Your task to perform on an android device: See recent photos Image 0: 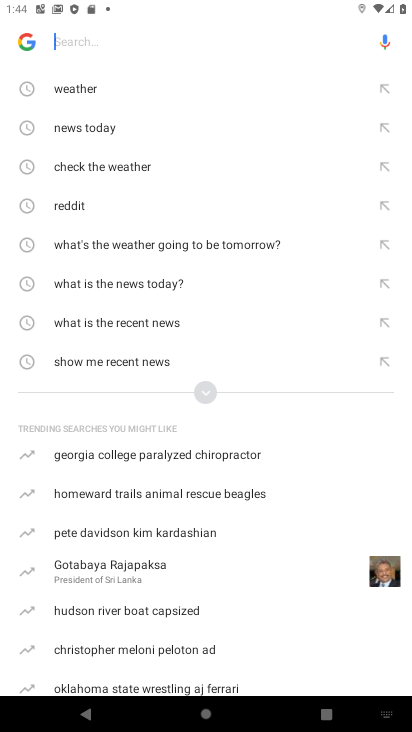
Step 0: press home button
Your task to perform on an android device: See recent photos Image 1: 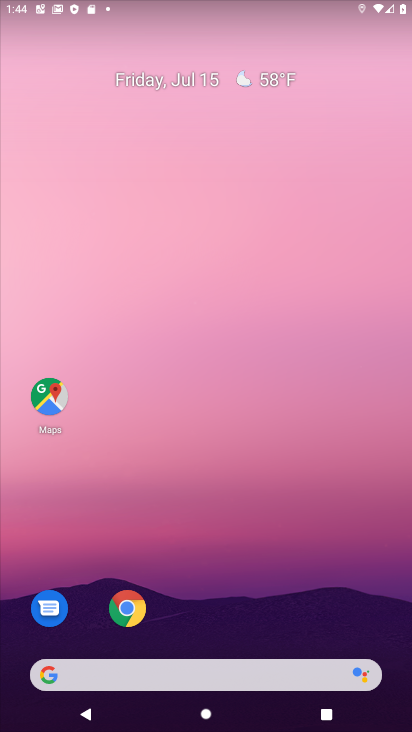
Step 1: click (267, 148)
Your task to perform on an android device: See recent photos Image 2: 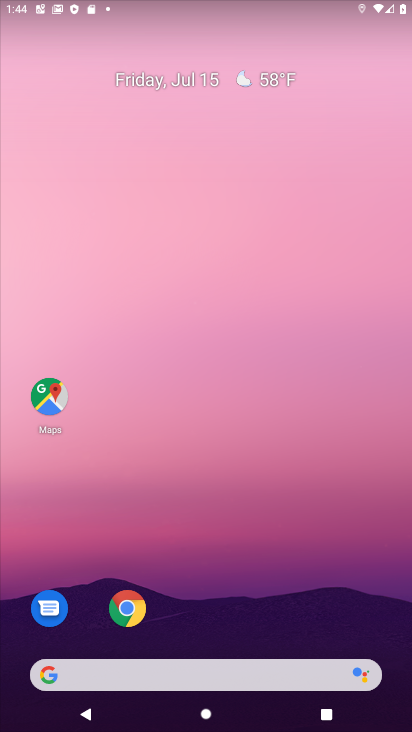
Step 2: drag from (241, 621) to (243, 132)
Your task to perform on an android device: See recent photos Image 3: 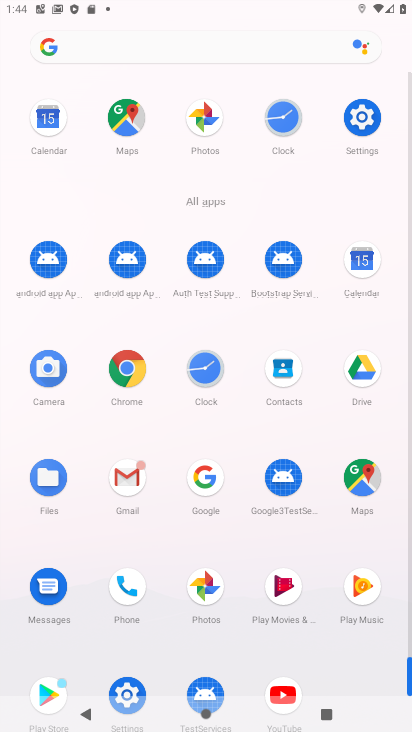
Step 3: click (202, 110)
Your task to perform on an android device: See recent photos Image 4: 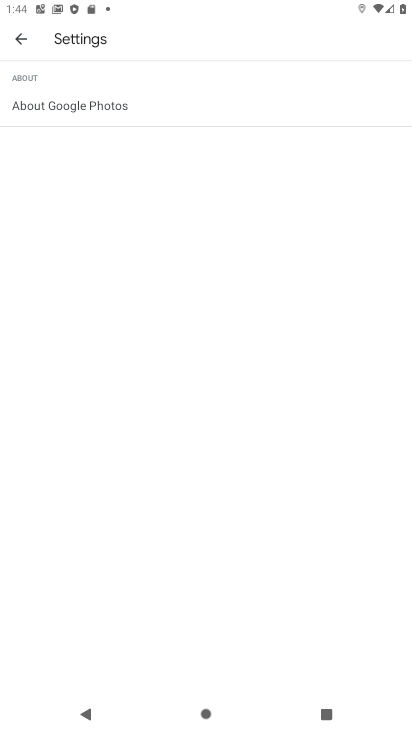
Step 4: click (19, 39)
Your task to perform on an android device: See recent photos Image 5: 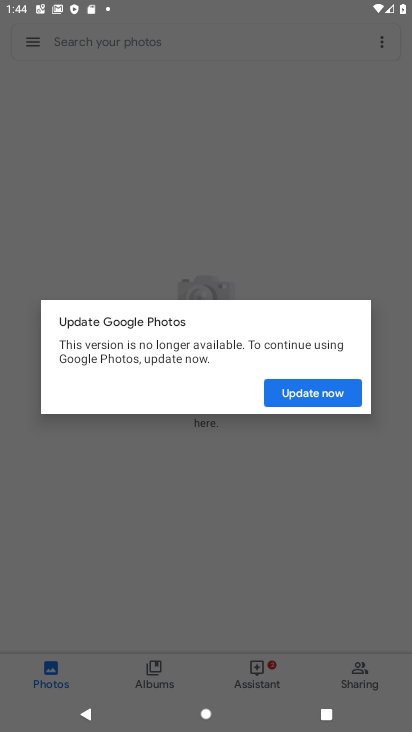
Step 5: click (328, 389)
Your task to perform on an android device: See recent photos Image 6: 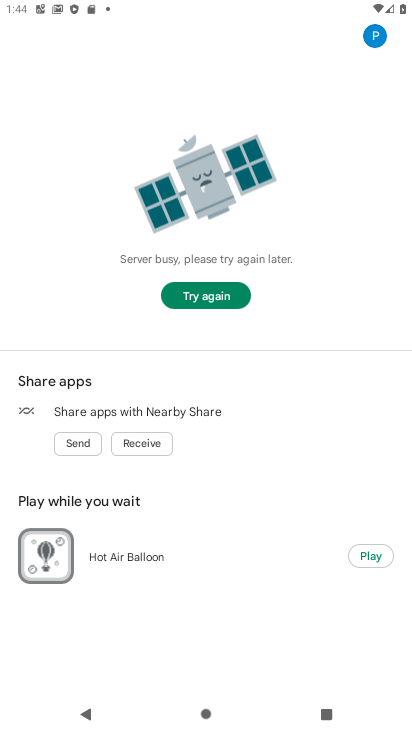
Step 6: press back button
Your task to perform on an android device: See recent photos Image 7: 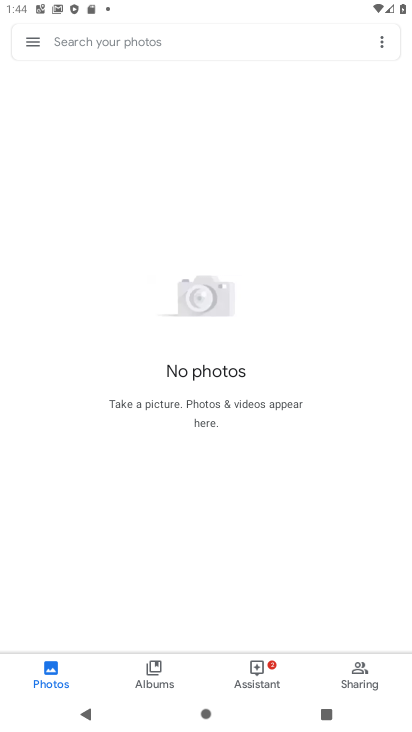
Step 7: click (42, 666)
Your task to perform on an android device: See recent photos Image 8: 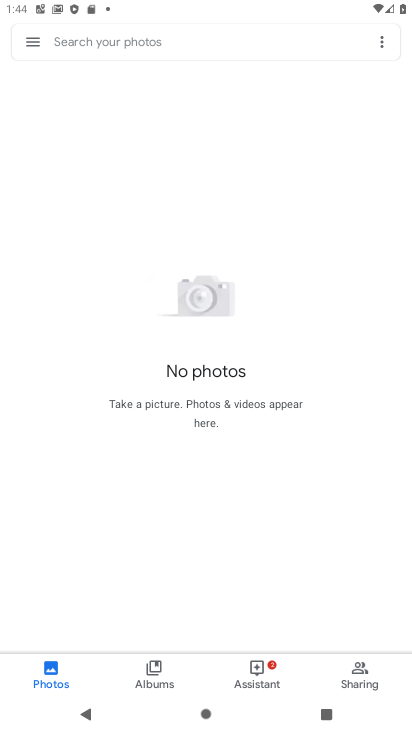
Step 8: task complete